Your task to perform on an android device: open app "Microsoft Outlook" Image 0: 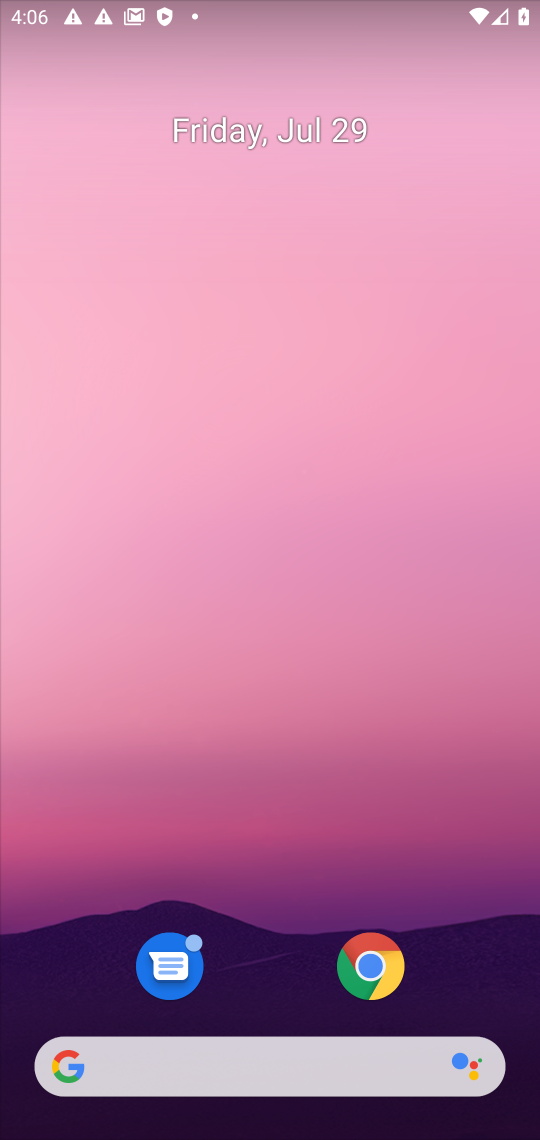
Step 0: drag from (231, 1005) to (191, 131)
Your task to perform on an android device: open app "Microsoft Outlook" Image 1: 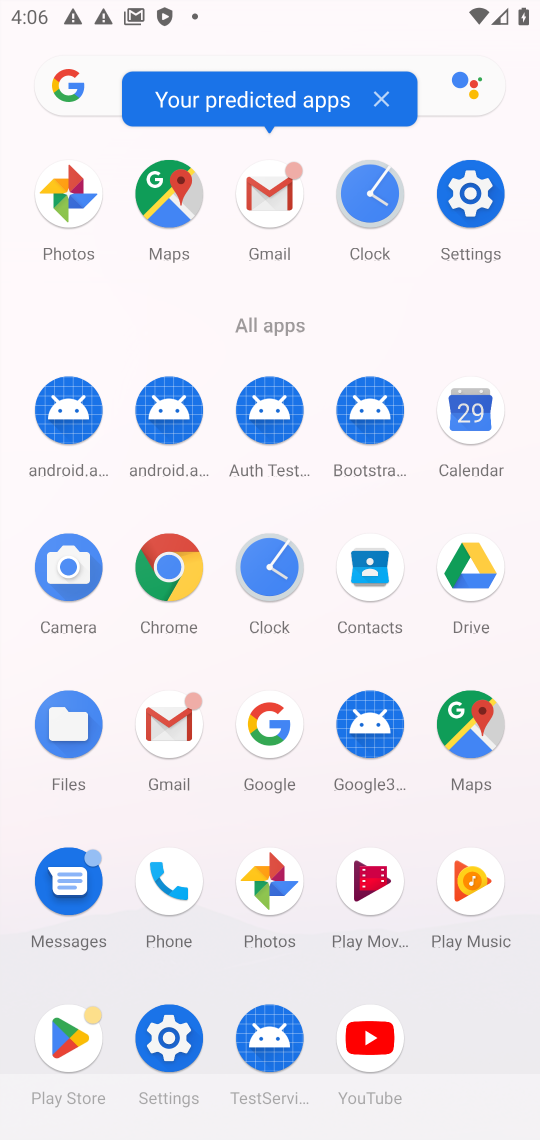
Step 1: click (69, 1031)
Your task to perform on an android device: open app "Microsoft Outlook" Image 2: 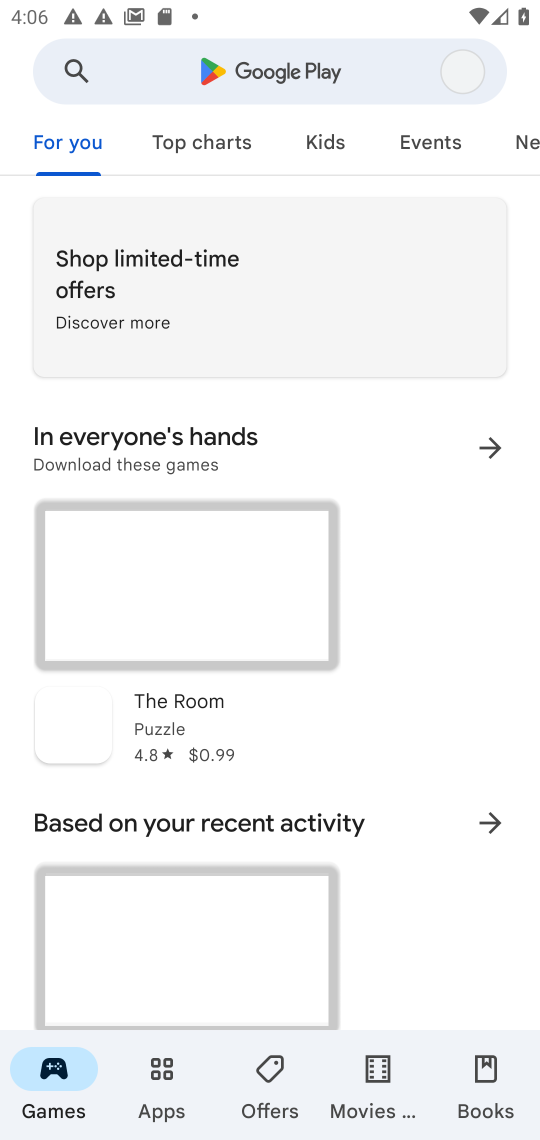
Step 2: click (257, 79)
Your task to perform on an android device: open app "Microsoft Outlook" Image 3: 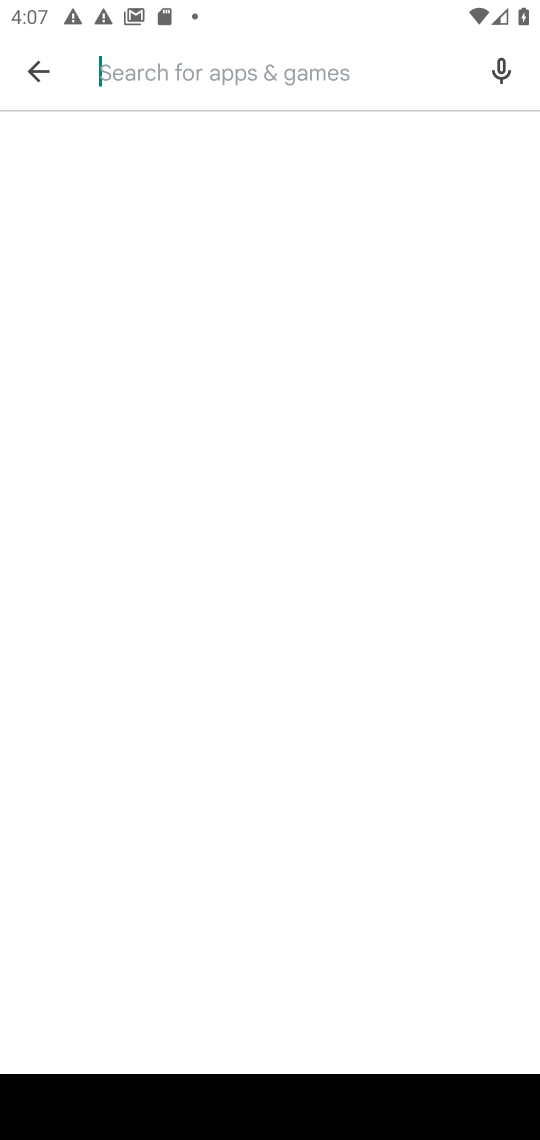
Step 3: type "microsoft Outlook"
Your task to perform on an android device: open app "Microsoft Outlook" Image 4: 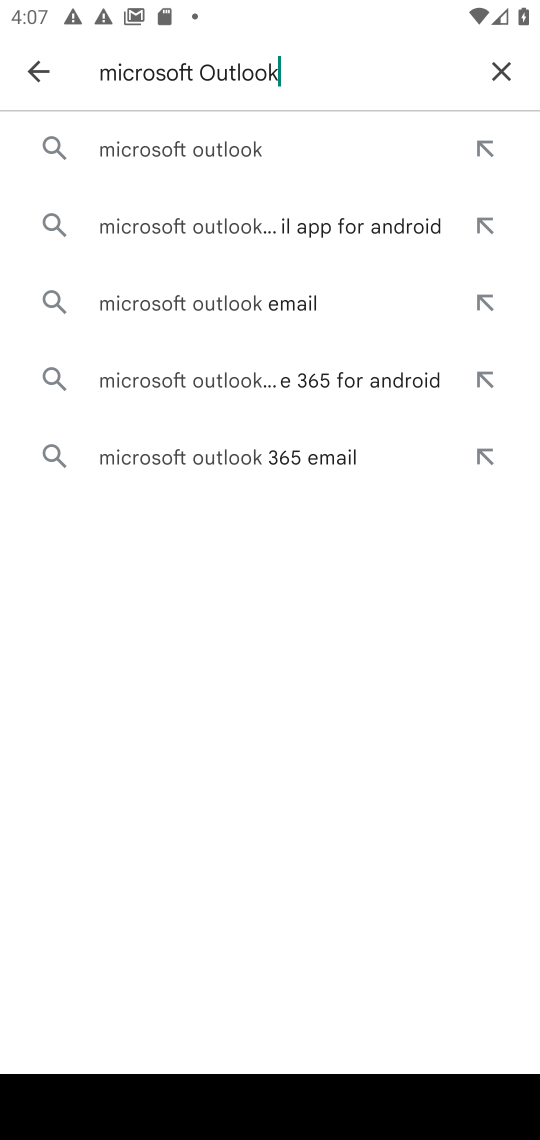
Step 4: click (218, 170)
Your task to perform on an android device: open app "Microsoft Outlook" Image 5: 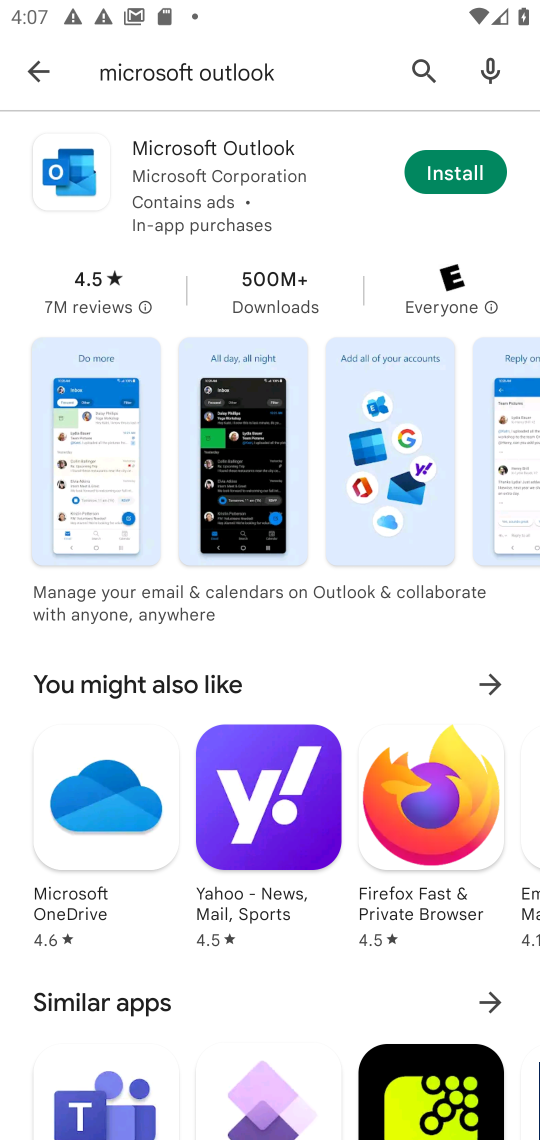
Step 5: task complete